Your task to perform on an android device: add a contact Image 0: 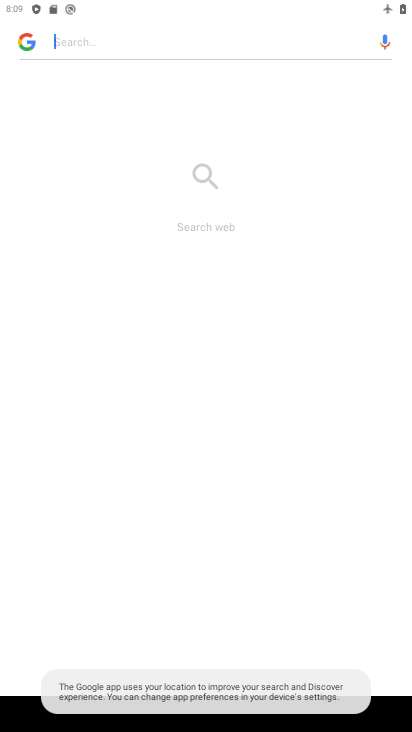
Step 0: press home button
Your task to perform on an android device: add a contact Image 1: 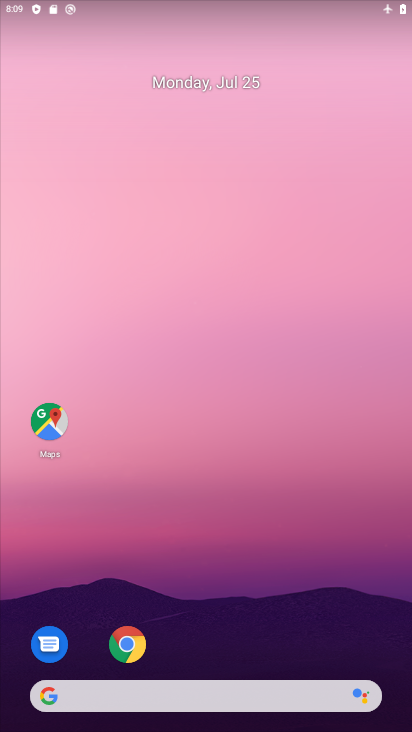
Step 1: drag from (272, 642) to (269, 87)
Your task to perform on an android device: add a contact Image 2: 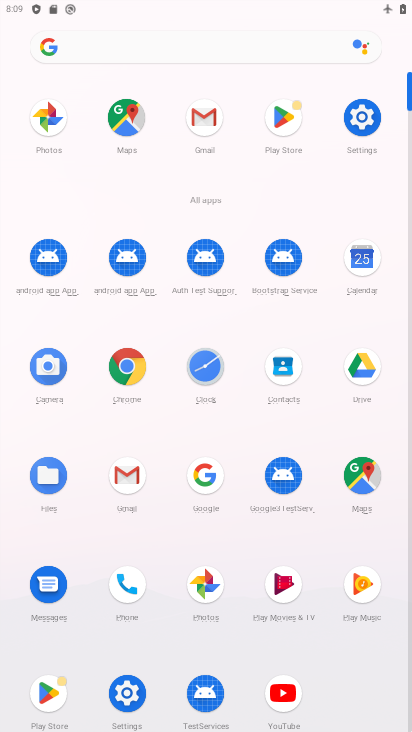
Step 2: click (131, 578)
Your task to perform on an android device: add a contact Image 3: 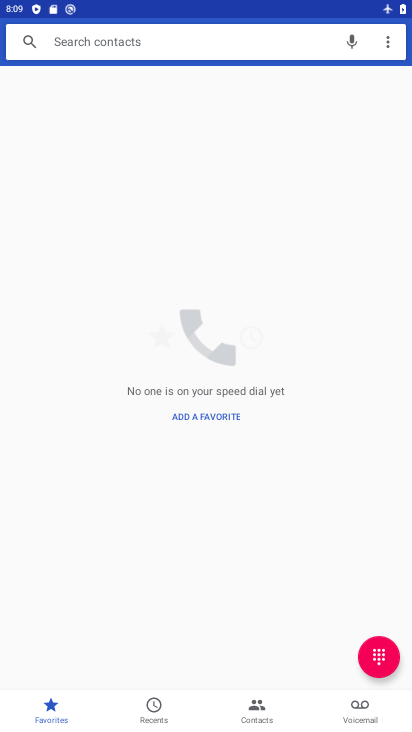
Step 3: click (226, 412)
Your task to perform on an android device: add a contact Image 4: 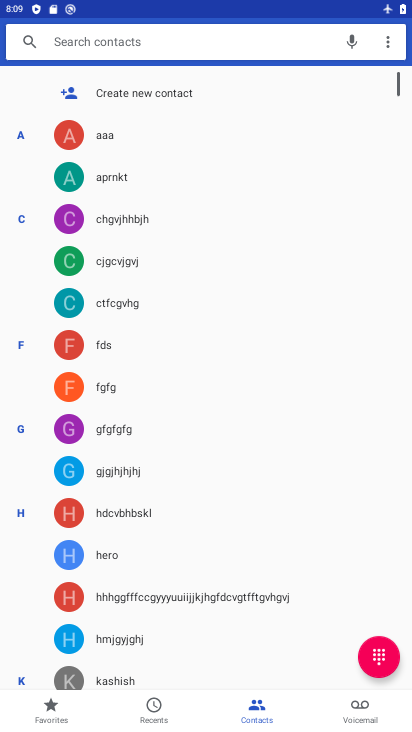
Step 4: click (132, 92)
Your task to perform on an android device: add a contact Image 5: 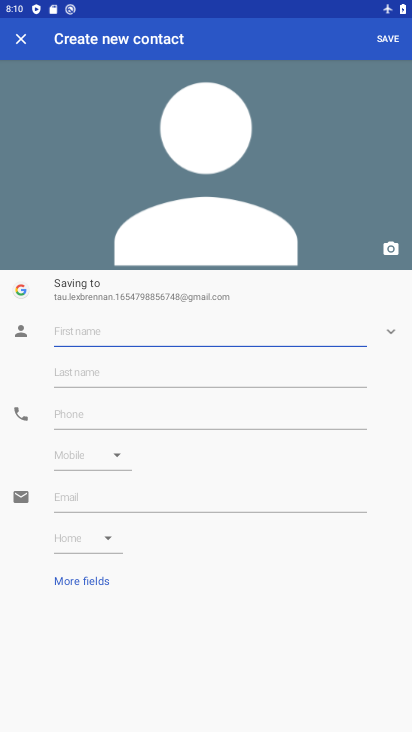
Step 5: click (146, 323)
Your task to perform on an android device: add a contact Image 6: 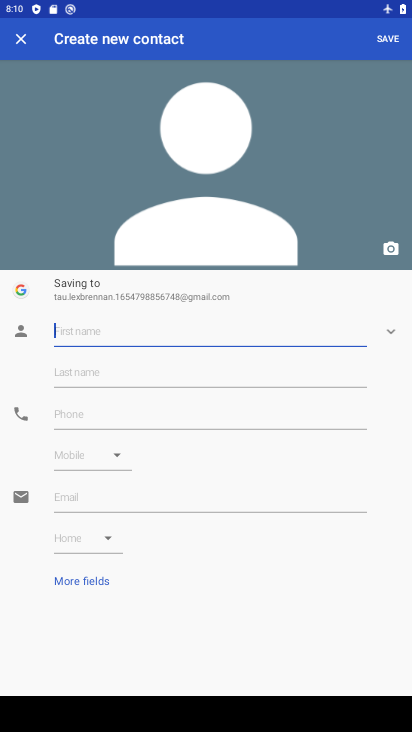
Step 6: type "jhjhjhjhjhjhj "
Your task to perform on an android device: add a contact Image 7: 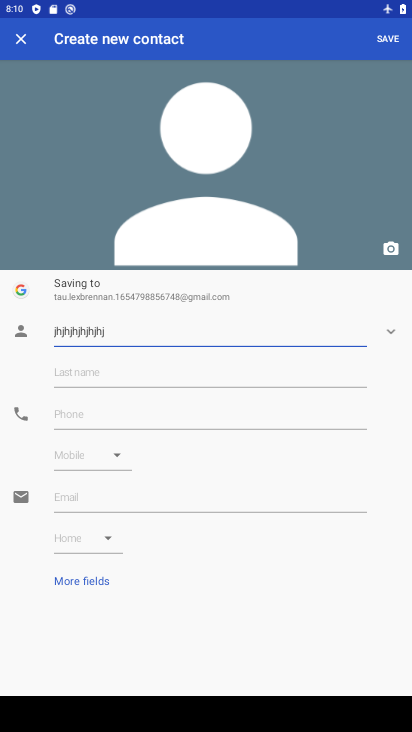
Step 7: click (87, 402)
Your task to perform on an android device: add a contact Image 8: 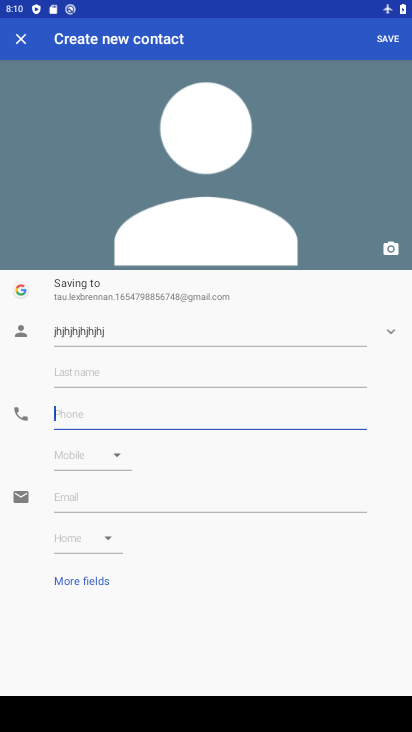
Step 8: type "989989898989 "
Your task to perform on an android device: add a contact Image 9: 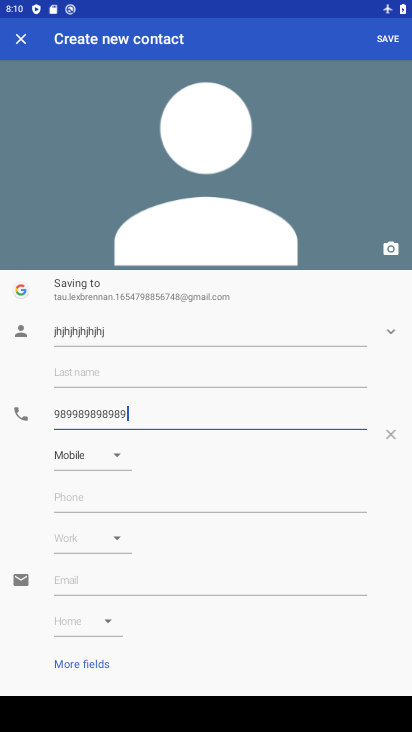
Step 9: click (396, 34)
Your task to perform on an android device: add a contact Image 10: 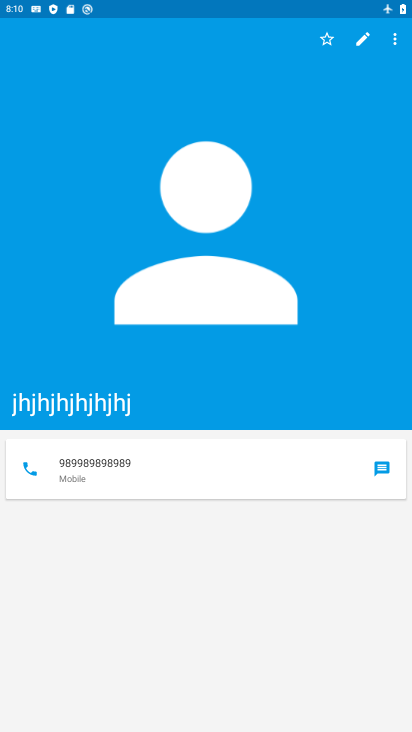
Step 10: task complete